Your task to perform on an android device: Go to privacy settings Image 0: 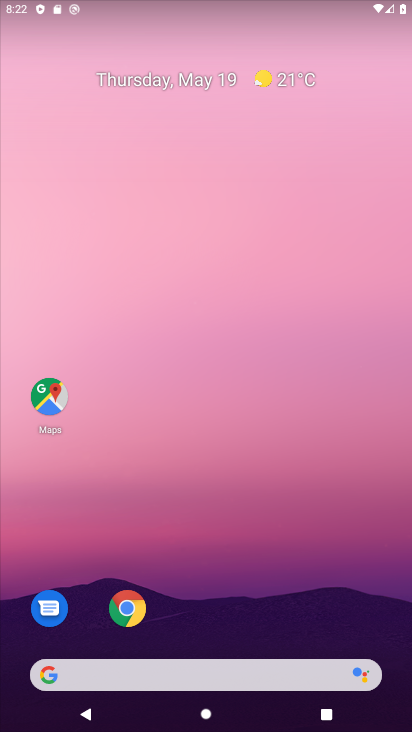
Step 0: drag from (272, 558) to (217, 74)
Your task to perform on an android device: Go to privacy settings Image 1: 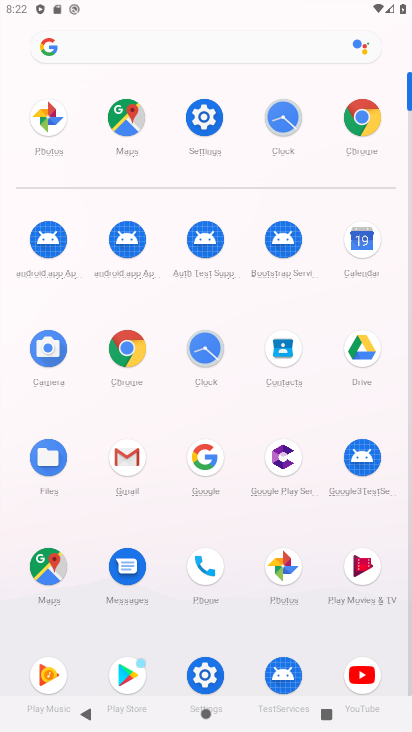
Step 1: click (202, 118)
Your task to perform on an android device: Go to privacy settings Image 2: 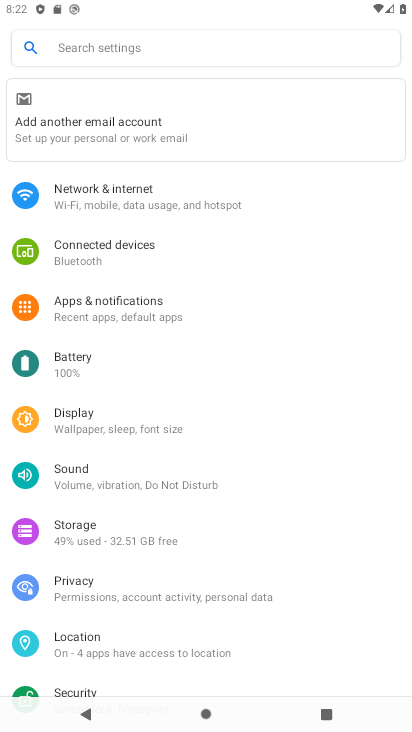
Step 2: click (66, 576)
Your task to perform on an android device: Go to privacy settings Image 3: 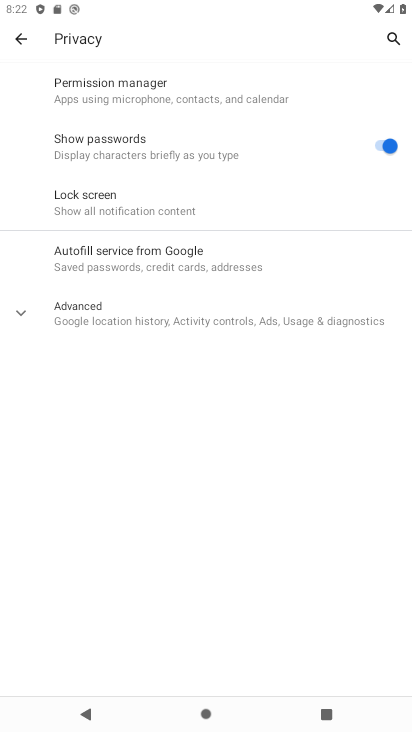
Step 3: task complete